Your task to perform on an android device: Search for the new iphone 13 pro on Etsy. Image 0: 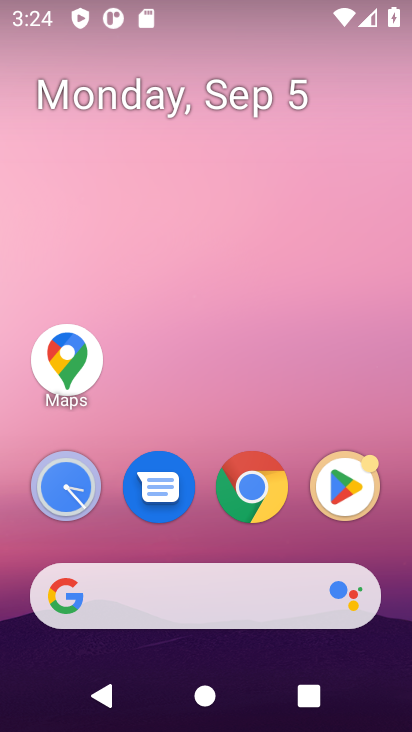
Step 0: drag from (302, 520) to (216, 4)
Your task to perform on an android device: Search for the new iphone 13 pro on Etsy. Image 1: 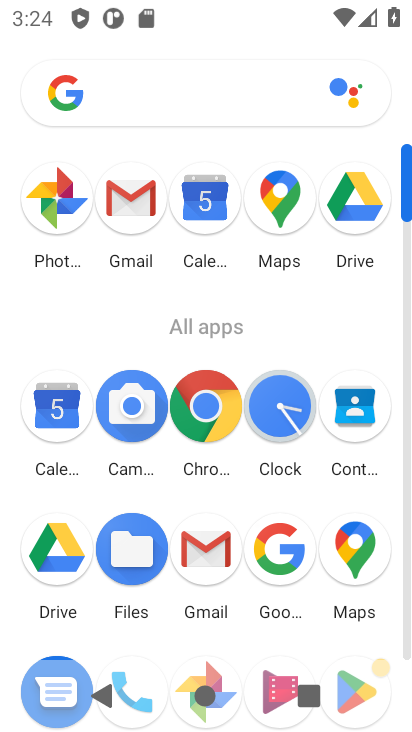
Step 1: click (194, 414)
Your task to perform on an android device: Search for the new iphone 13 pro on Etsy. Image 2: 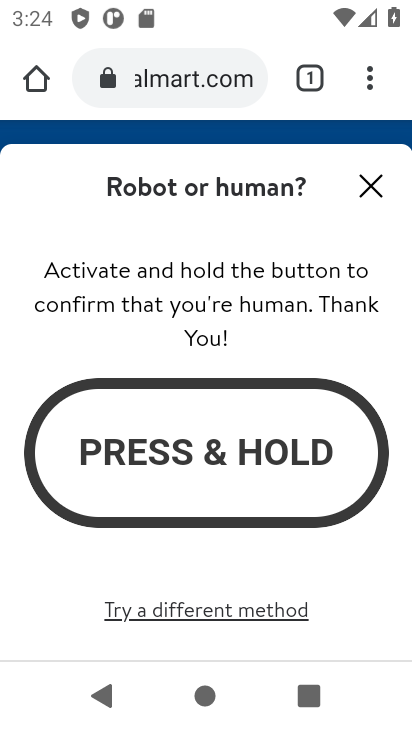
Step 2: task complete